Your task to perform on an android device: Go to notification settings Image 0: 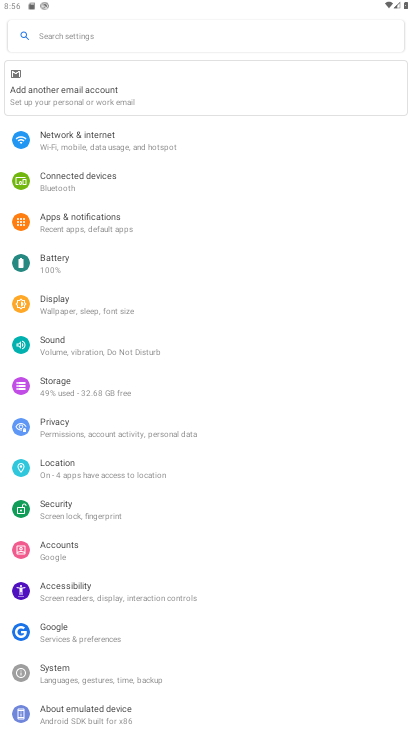
Step 0: click (70, 224)
Your task to perform on an android device: Go to notification settings Image 1: 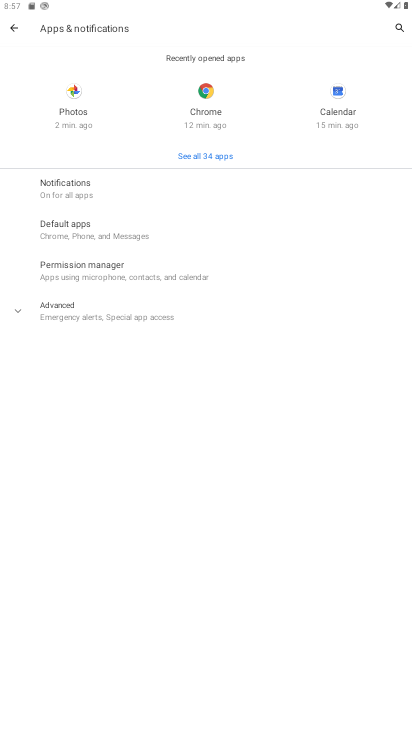
Step 1: click (75, 186)
Your task to perform on an android device: Go to notification settings Image 2: 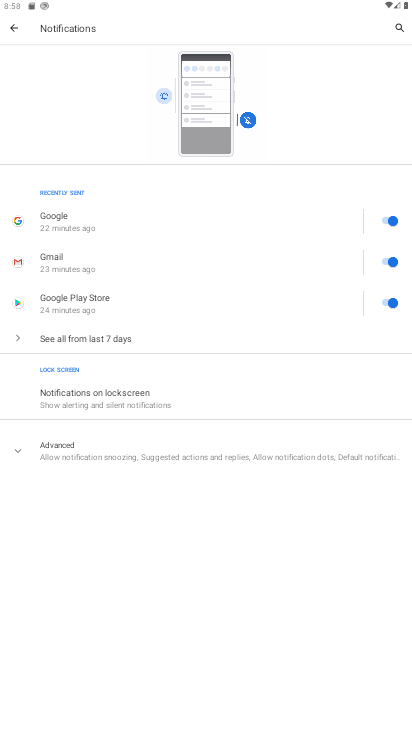
Step 2: task complete